Your task to perform on an android device: all mails in gmail Image 0: 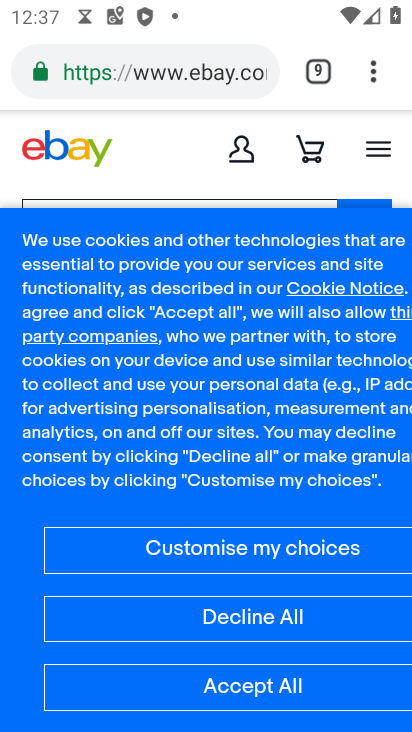
Step 0: press home button
Your task to perform on an android device: all mails in gmail Image 1: 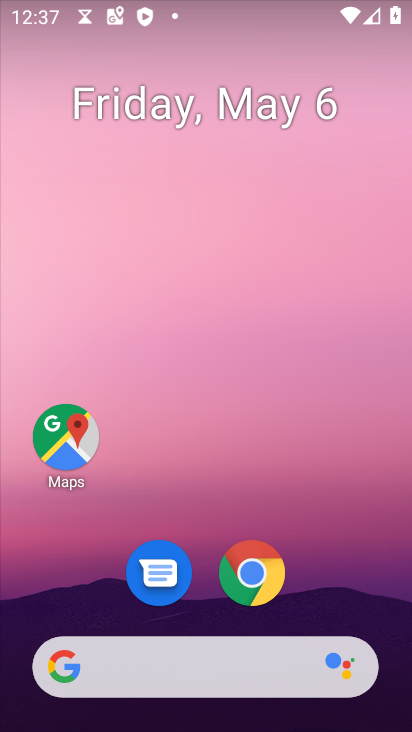
Step 1: drag from (316, 581) to (336, 199)
Your task to perform on an android device: all mails in gmail Image 2: 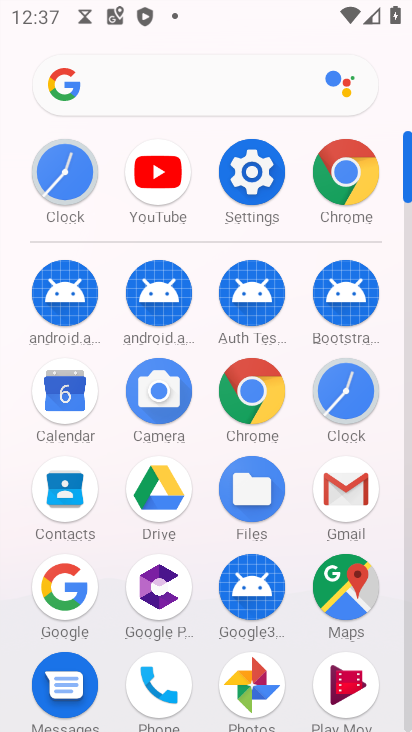
Step 2: click (338, 468)
Your task to perform on an android device: all mails in gmail Image 3: 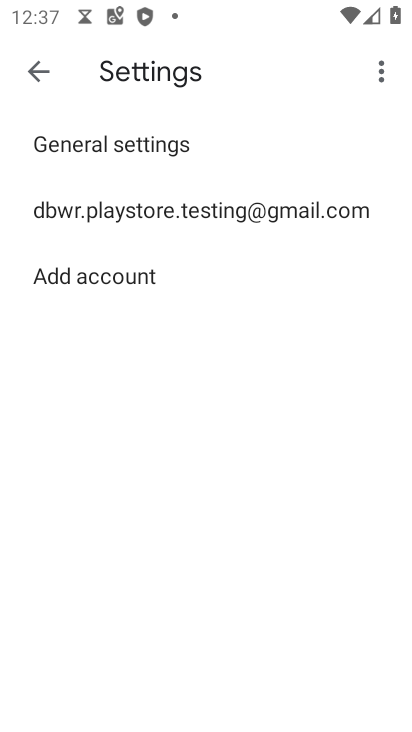
Step 3: click (43, 72)
Your task to perform on an android device: all mails in gmail Image 4: 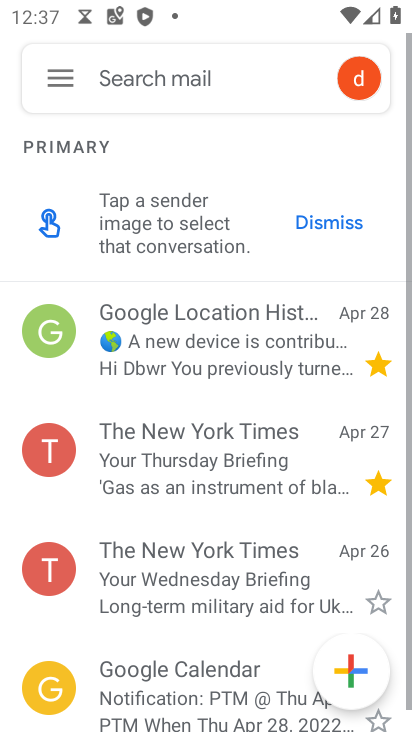
Step 4: click (61, 70)
Your task to perform on an android device: all mails in gmail Image 5: 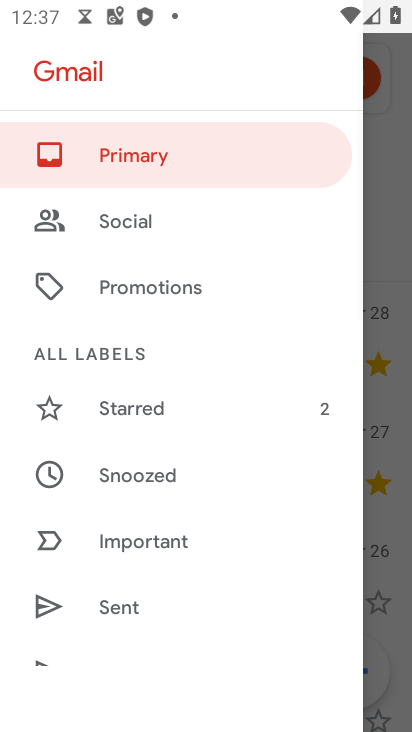
Step 5: click (185, 188)
Your task to perform on an android device: all mails in gmail Image 6: 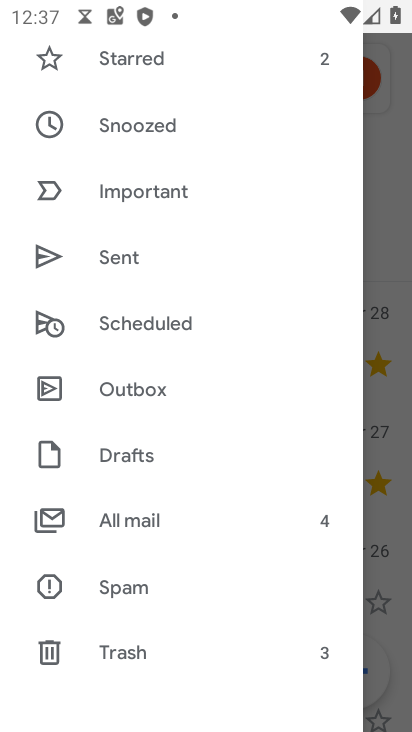
Step 6: click (122, 521)
Your task to perform on an android device: all mails in gmail Image 7: 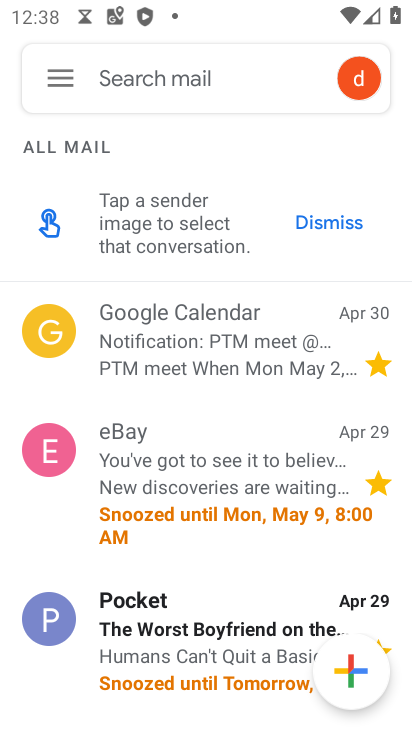
Step 7: task complete